Your task to perform on an android device: change the clock style Image 0: 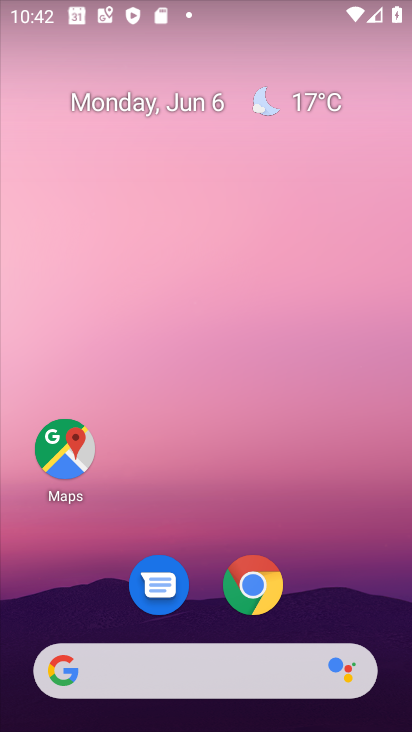
Step 0: drag from (218, 518) to (235, 2)
Your task to perform on an android device: change the clock style Image 1: 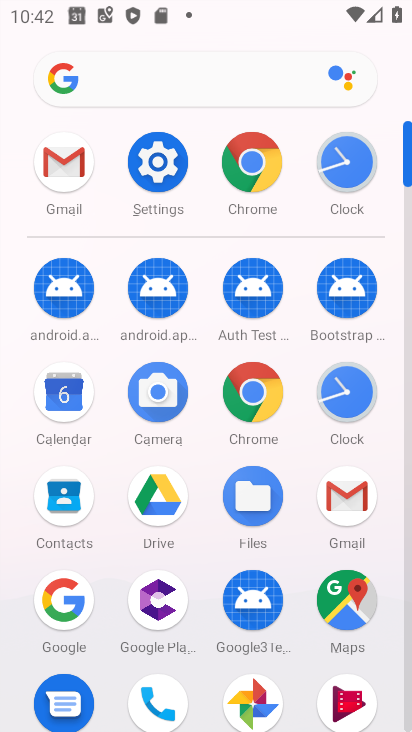
Step 1: click (353, 172)
Your task to perform on an android device: change the clock style Image 2: 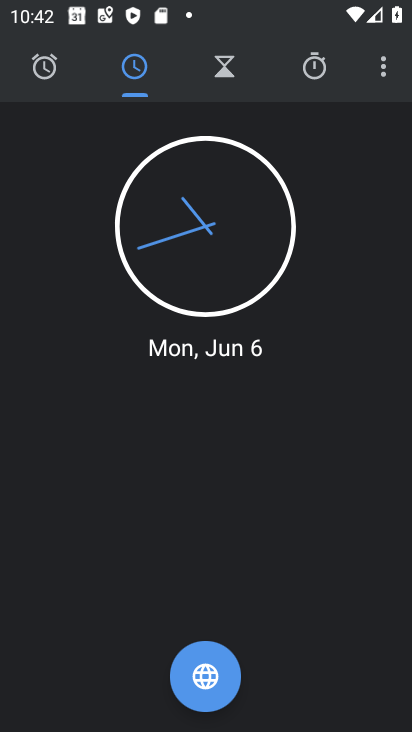
Step 2: click (376, 64)
Your task to perform on an android device: change the clock style Image 3: 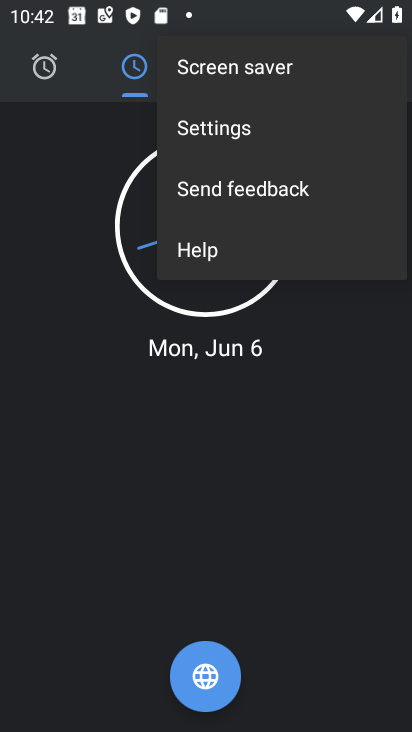
Step 3: click (268, 123)
Your task to perform on an android device: change the clock style Image 4: 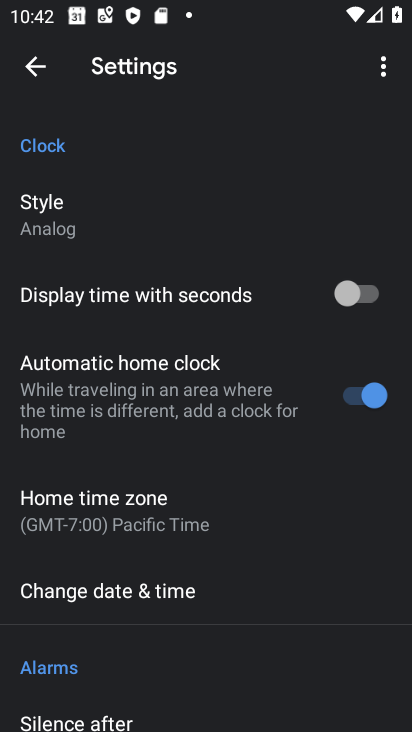
Step 4: click (113, 219)
Your task to perform on an android device: change the clock style Image 5: 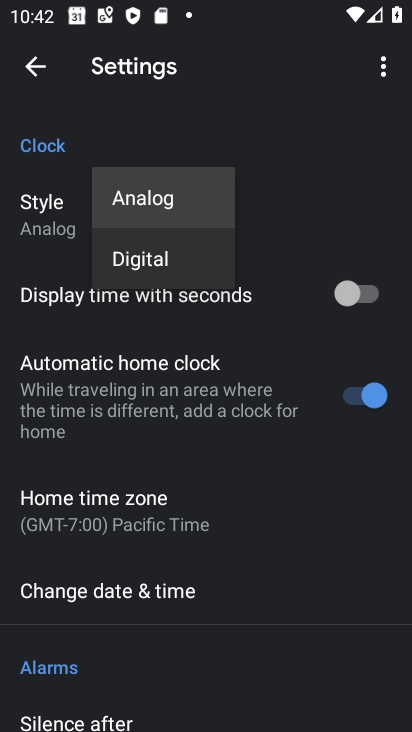
Step 5: click (138, 260)
Your task to perform on an android device: change the clock style Image 6: 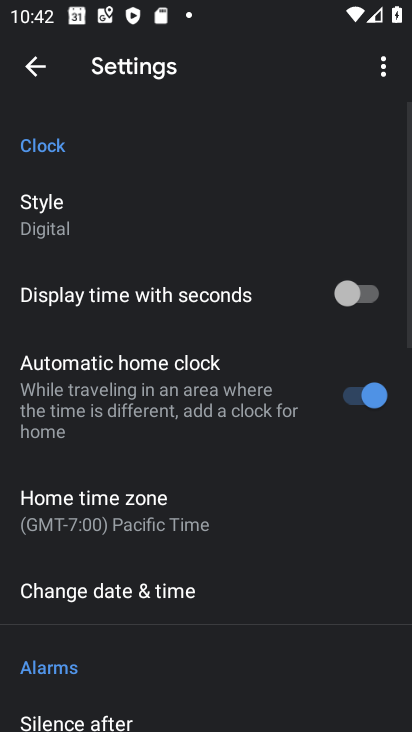
Step 6: task complete